Your task to perform on an android device: What's on my calendar today? Image 0: 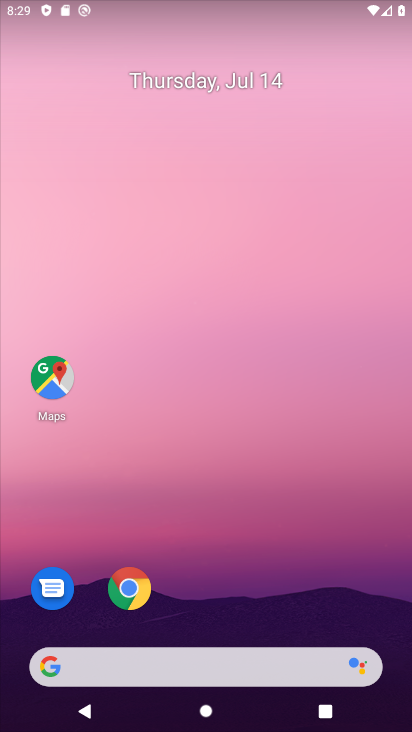
Step 0: drag from (178, 600) to (198, 123)
Your task to perform on an android device: What's on my calendar today? Image 1: 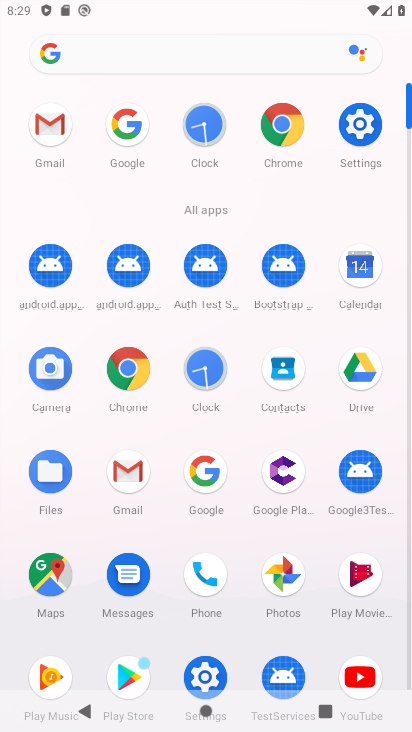
Step 1: click (358, 270)
Your task to perform on an android device: What's on my calendar today? Image 2: 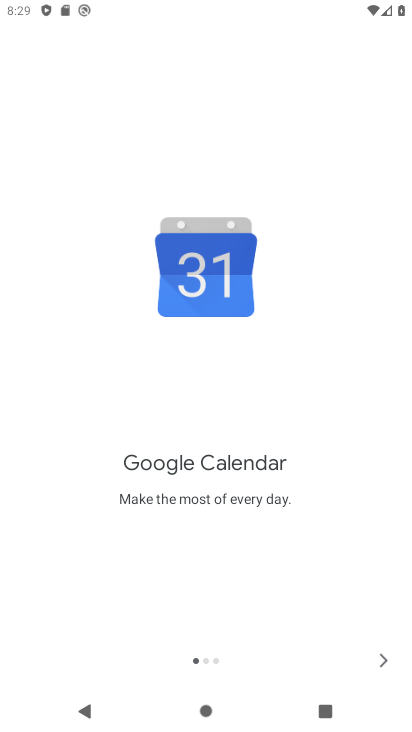
Step 2: click (380, 662)
Your task to perform on an android device: What's on my calendar today? Image 3: 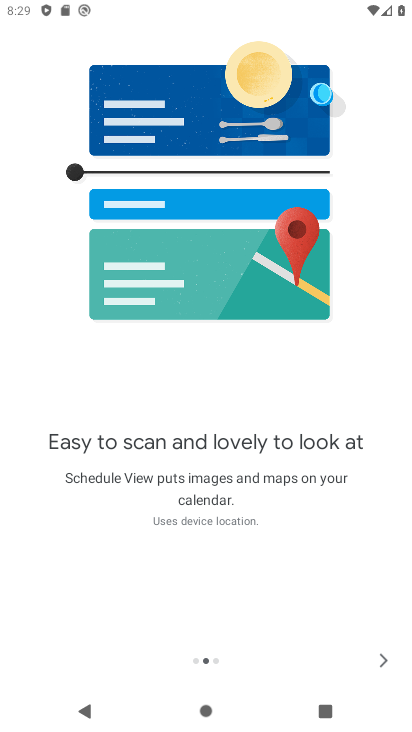
Step 3: click (380, 663)
Your task to perform on an android device: What's on my calendar today? Image 4: 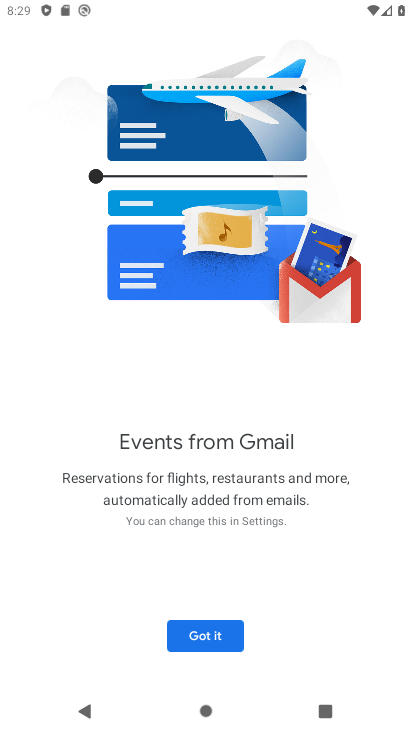
Step 4: click (219, 635)
Your task to perform on an android device: What's on my calendar today? Image 5: 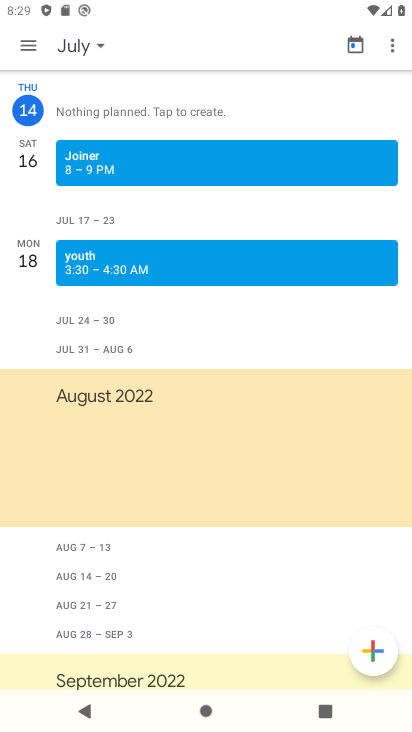
Step 5: click (87, 58)
Your task to perform on an android device: What's on my calendar today? Image 6: 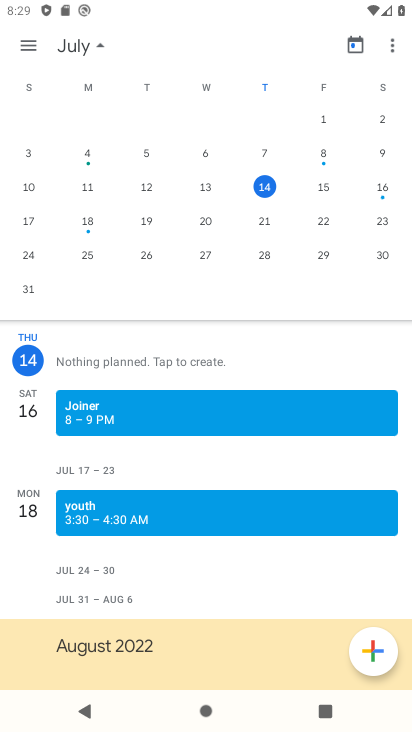
Step 6: click (259, 181)
Your task to perform on an android device: What's on my calendar today? Image 7: 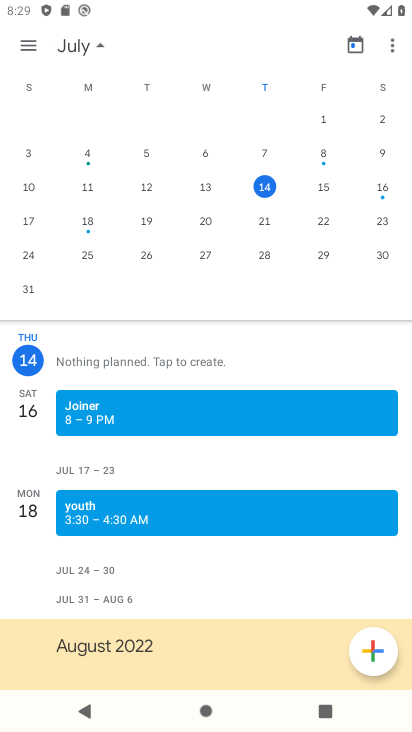
Step 7: task complete